Your task to perform on an android device: turn notification dots off Image 0: 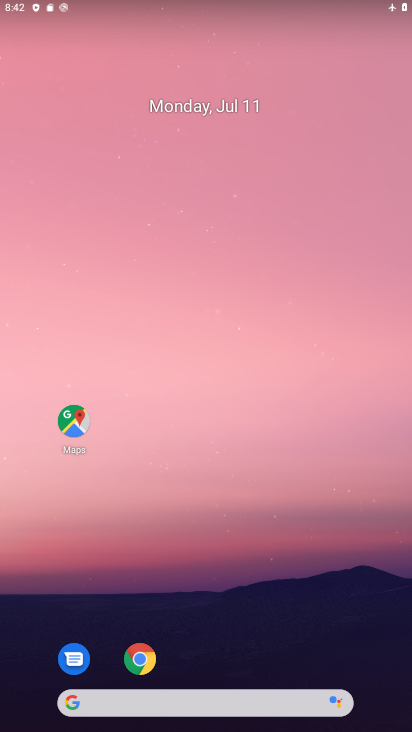
Step 0: drag from (201, 547) to (132, 127)
Your task to perform on an android device: turn notification dots off Image 1: 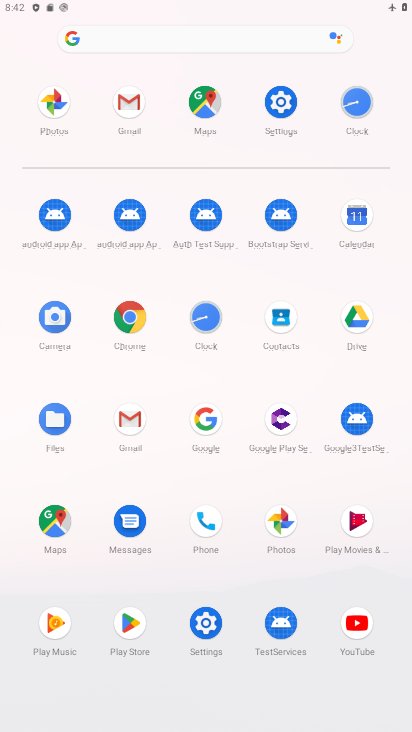
Step 1: click (287, 113)
Your task to perform on an android device: turn notification dots off Image 2: 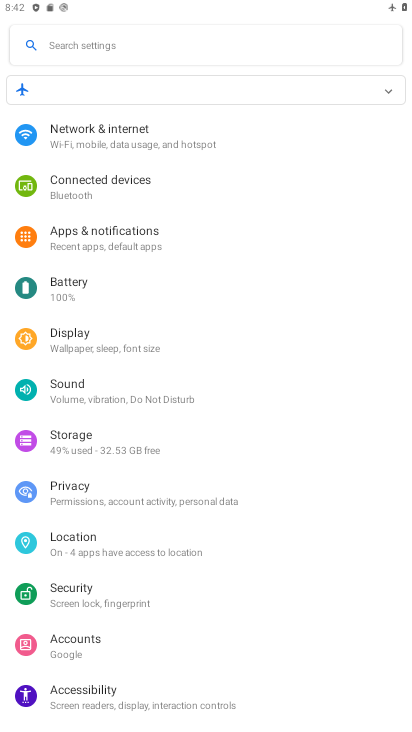
Step 2: click (145, 249)
Your task to perform on an android device: turn notification dots off Image 3: 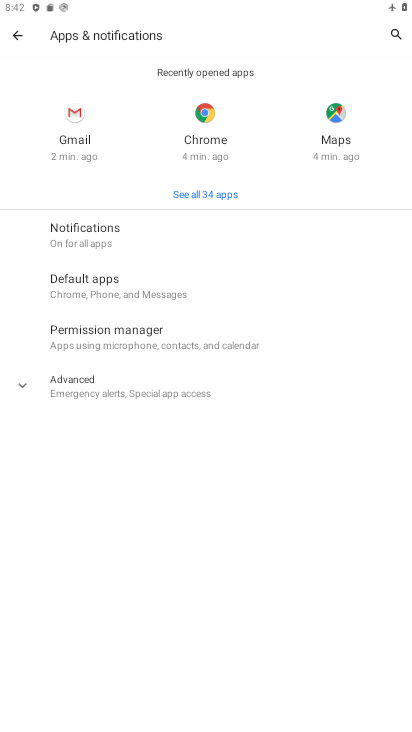
Step 3: click (150, 241)
Your task to perform on an android device: turn notification dots off Image 4: 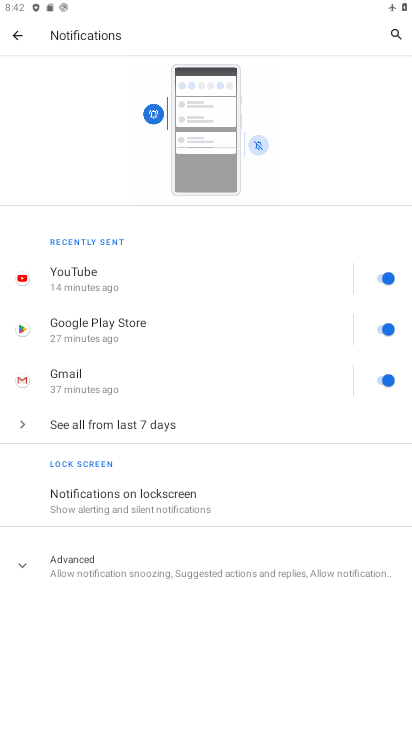
Step 4: click (189, 564)
Your task to perform on an android device: turn notification dots off Image 5: 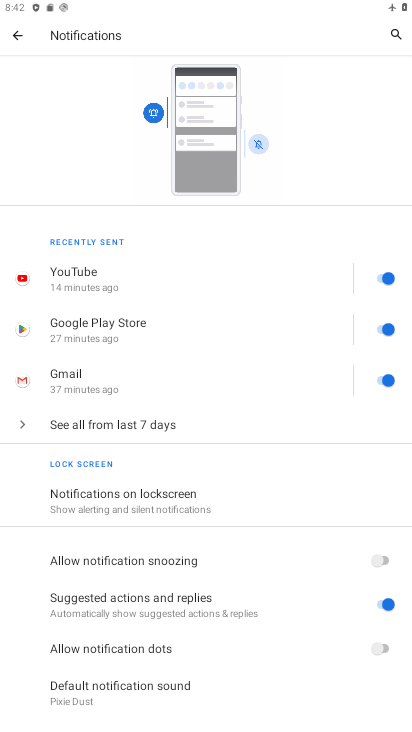
Step 5: task complete